Your task to perform on an android device: toggle location history Image 0: 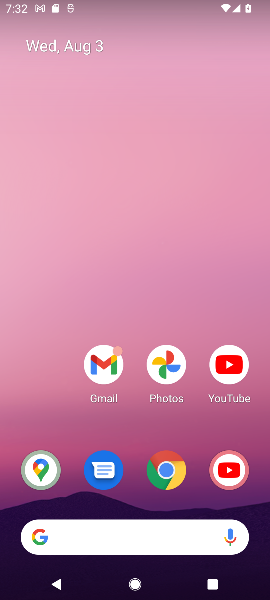
Step 0: click (39, 467)
Your task to perform on an android device: toggle location history Image 1: 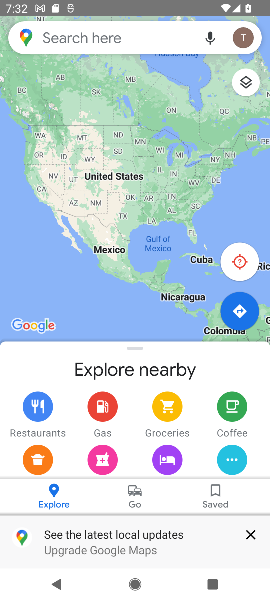
Step 1: press home button
Your task to perform on an android device: toggle location history Image 2: 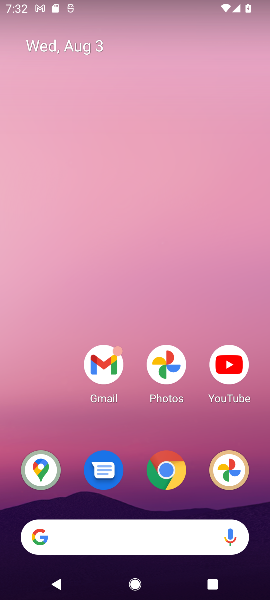
Step 2: drag from (132, 439) to (146, 60)
Your task to perform on an android device: toggle location history Image 3: 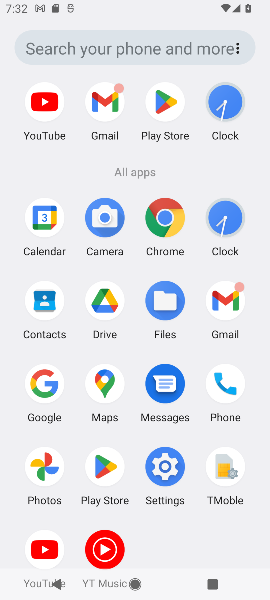
Step 3: click (162, 463)
Your task to perform on an android device: toggle location history Image 4: 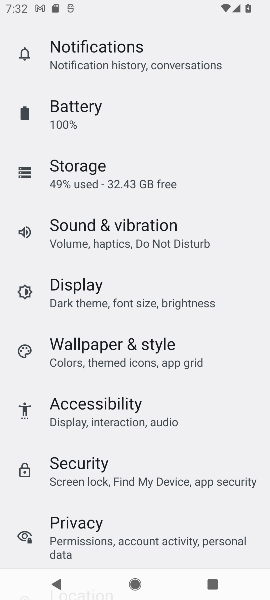
Step 4: drag from (124, 505) to (130, 46)
Your task to perform on an android device: toggle location history Image 5: 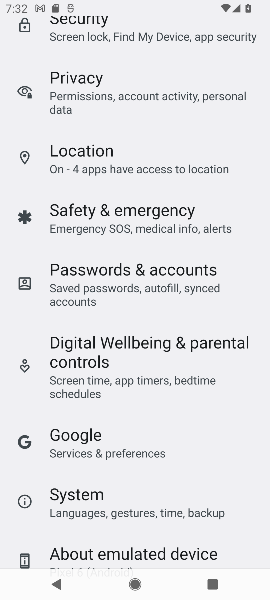
Step 5: click (124, 150)
Your task to perform on an android device: toggle location history Image 6: 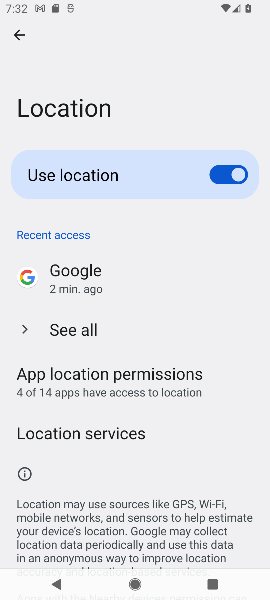
Step 6: click (79, 431)
Your task to perform on an android device: toggle location history Image 7: 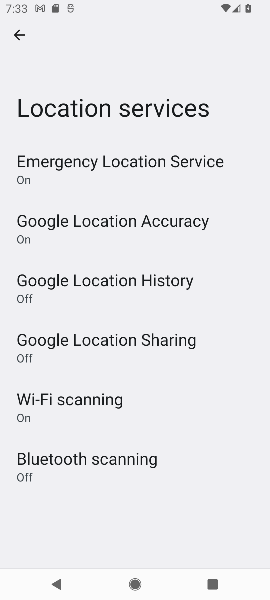
Step 7: click (140, 283)
Your task to perform on an android device: toggle location history Image 8: 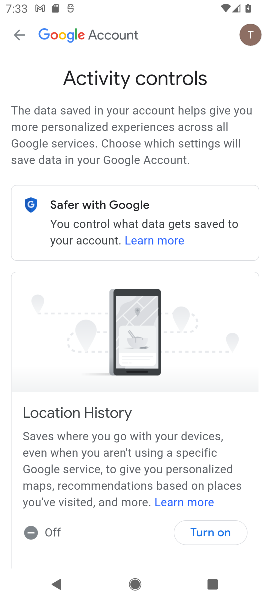
Step 8: drag from (135, 475) to (165, 86)
Your task to perform on an android device: toggle location history Image 9: 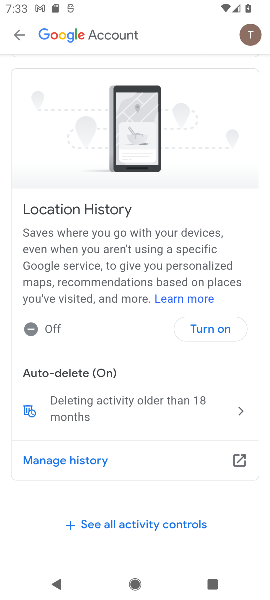
Step 9: click (212, 325)
Your task to perform on an android device: toggle location history Image 10: 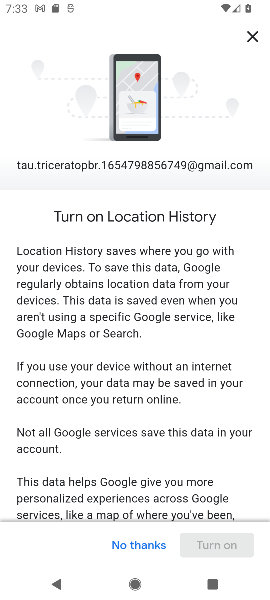
Step 10: drag from (117, 489) to (149, 48)
Your task to perform on an android device: toggle location history Image 11: 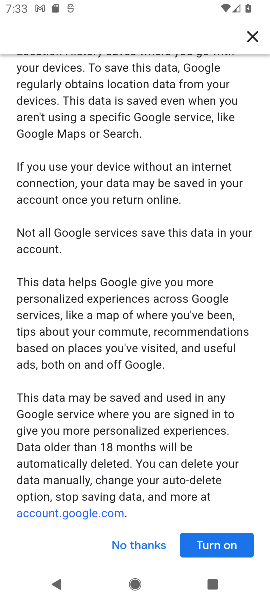
Step 11: click (219, 541)
Your task to perform on an android device: toggle location history Image 12: 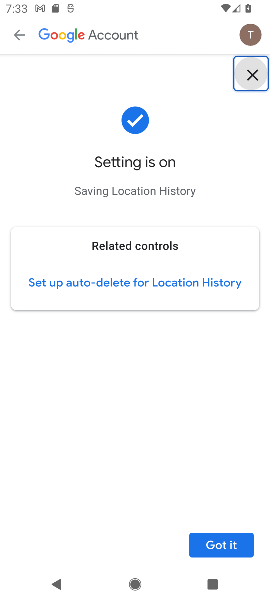
Step 12: click (219, 545)
Your task to perform on an android device: toggle location history Image 13: 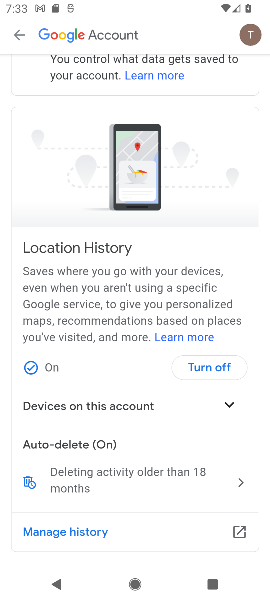
Step 13: task complete